Your task to perform on an android device: allow cookies in the chrome app Image 0: 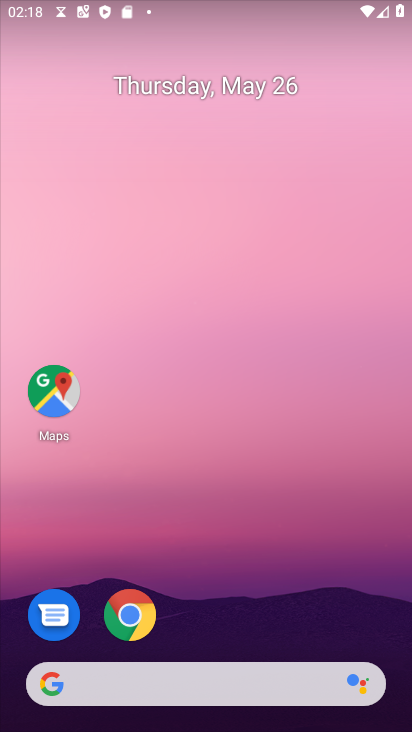
Step 0: drag from (218, 485) to (233, 115)
Your task to perform on an android device: allow cookies in the chrome app Image 1: 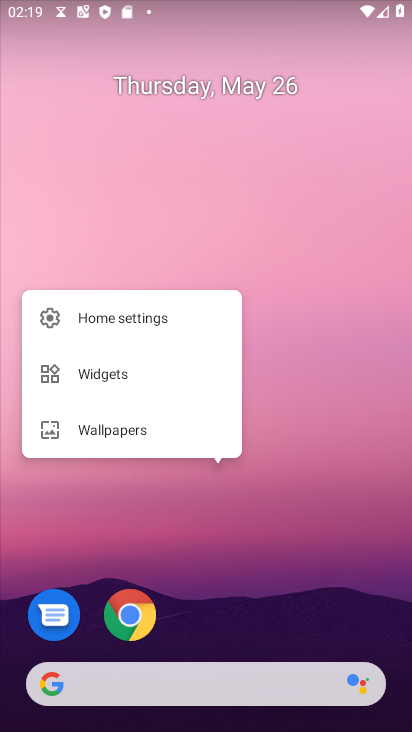
Step 1: click (285, 562)
Your task to perform on an android device: allow cookies in the chrome app Image 2: 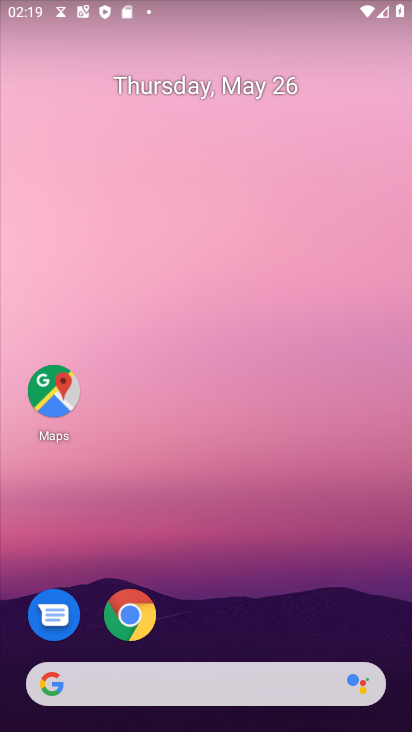
Step 2: click (126, 609)
Your task to perform on an android device: allow cookies in the chrome app Image 3: 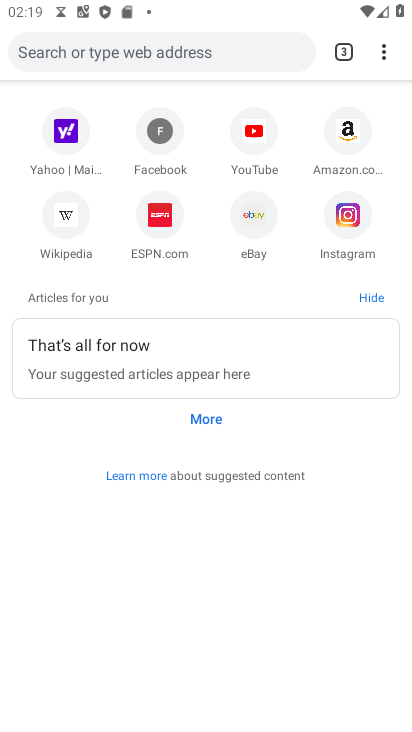
Step 3: click (382, 46)
Your task to perform on an android device: allow cookies in the chrome app Image 4: 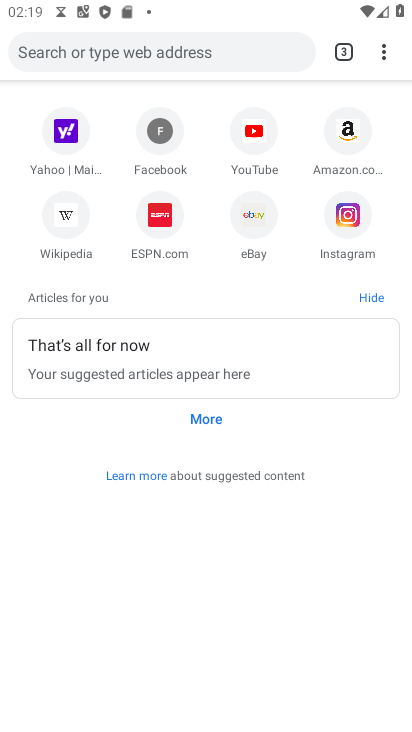
Step 4: click (380, 48)
Your task to perform on an android device: allow cookies in the chrome app Image 5: 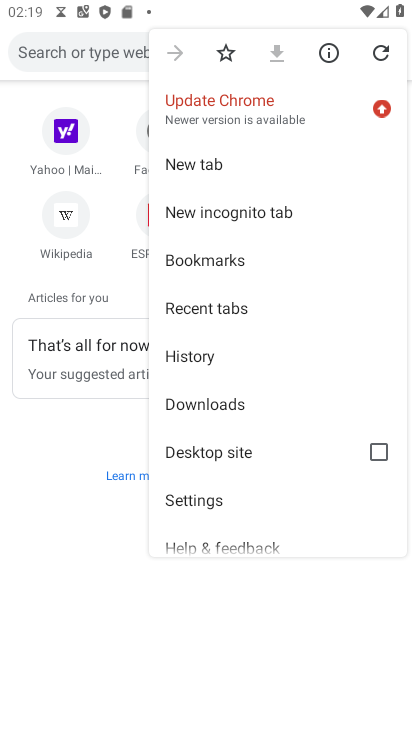
Step 5: click (232, 496)
Your task to perform on an android device: allow cookies in the chrome app Image 6: 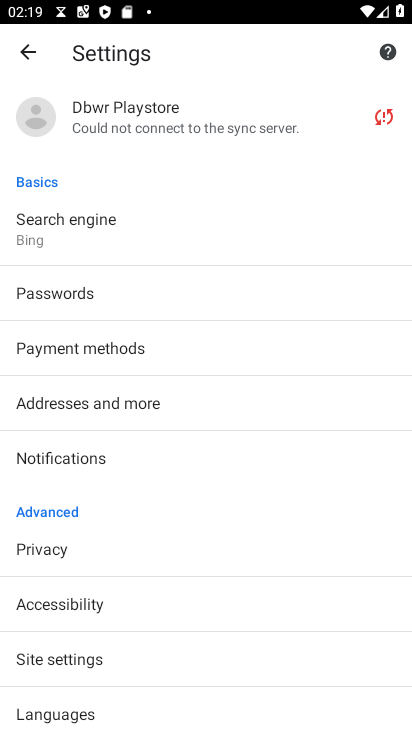
Step 6: click (116, 661)
Your task to perform on an android device: allow cookies in the chrome app Image 7: 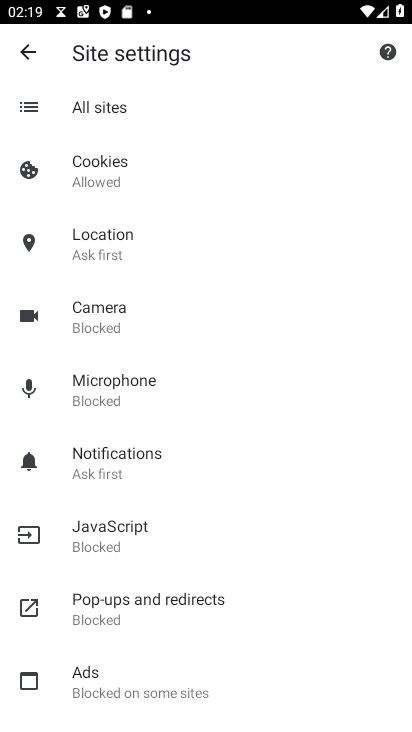
Step 7: click (132, 170)
Your task to perform on an android device: allow cookies in the chrome app Image 8: 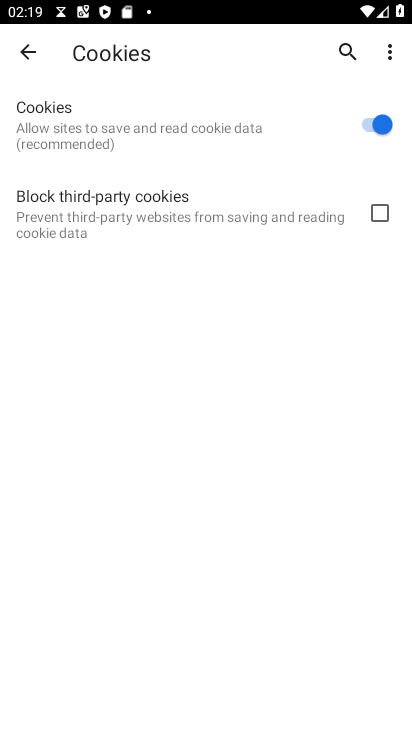
Step 8: task complete